Your task to perform on an android device: Go to internet settings Image 0: 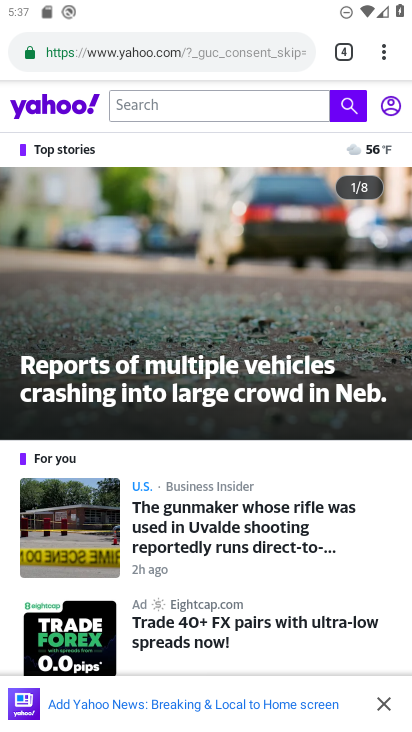
Step 0: drag from (273, 12) to (150, 622)
Your task to perform on an android device: Go to internet settings Image 1: 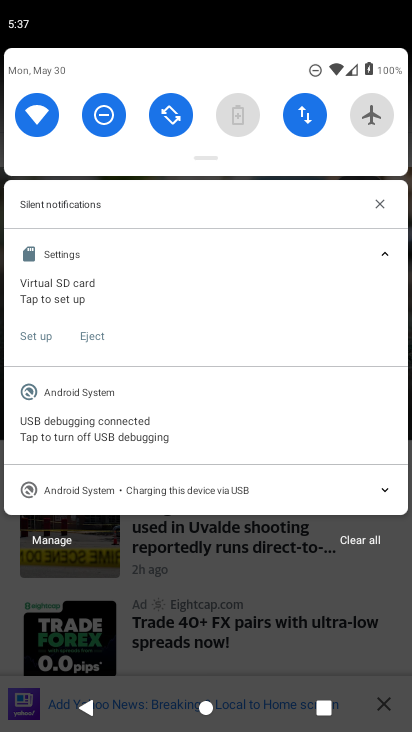
Step 1: click (317, 118)
Your task to perform on an android device: Go to internet settings Image 2: 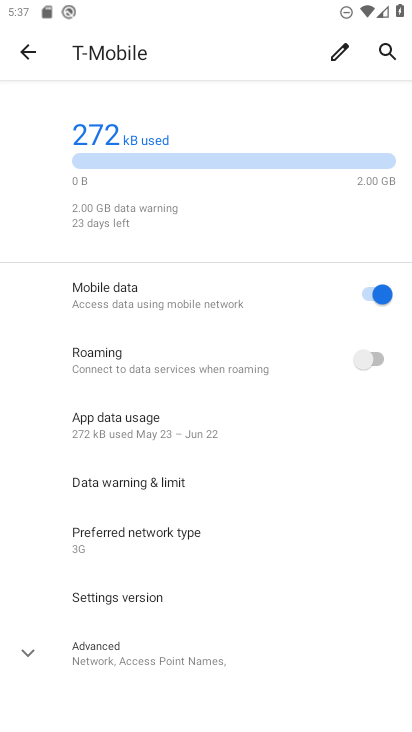
Step 2: task complete